Your task to perform on an android device: toggle priority inbox in the gmail app Image 0: 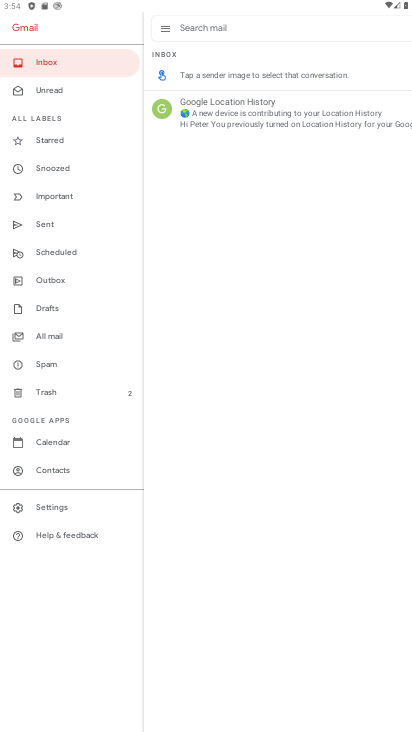
Step 0: press home button
Your task to perform on an android device: toggle priority inbox in the gmail app Image 1: 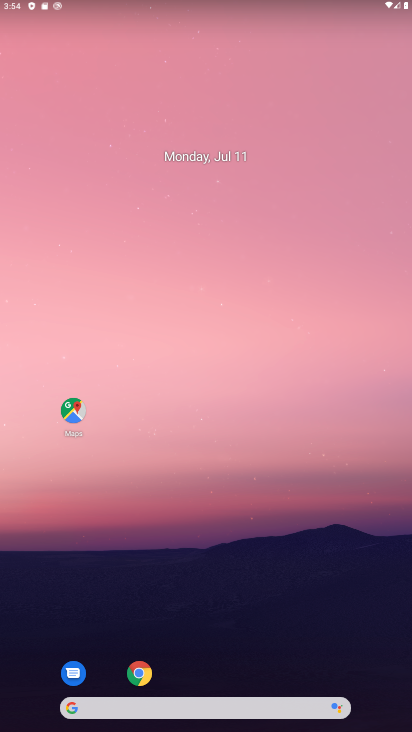
Step 1: drag from (227, 623) to (217, 134)
Your task to perform on an android device: toggle priority inbox in the gmail app Image 2: 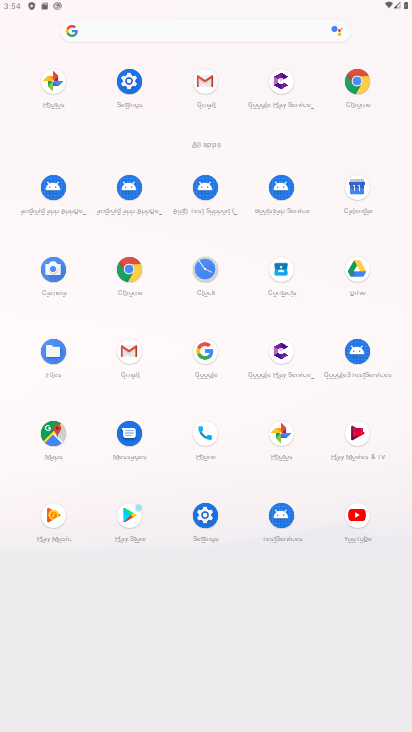
Step 2: click (129, 349)
Your task to perform on an android device: toggle priority inbox in the gmail app Image 3: 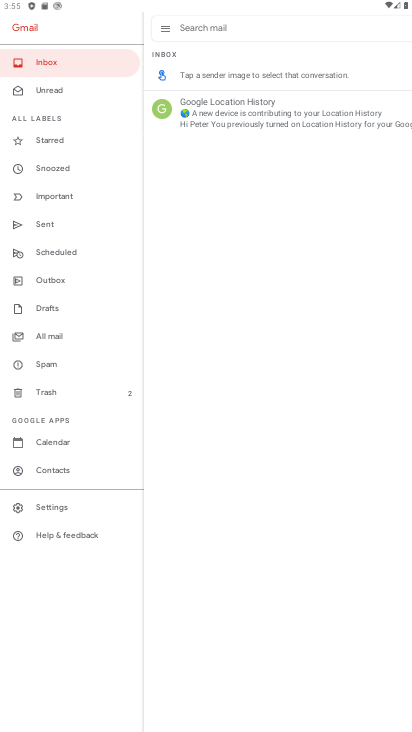
Step 3: click (51, 505)
Your task to perform on an android device: toggle priority inbox in the gmail app Image 4: 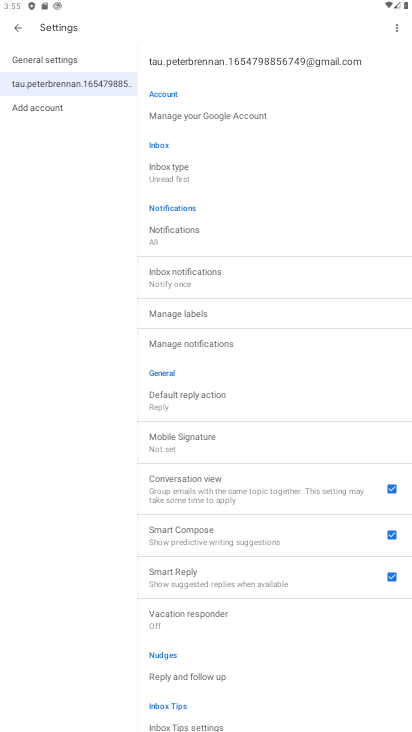
Step 4: click (169, 174)
Your task to perform on an android device: toggle priority inbox in the gmail app Image 5: 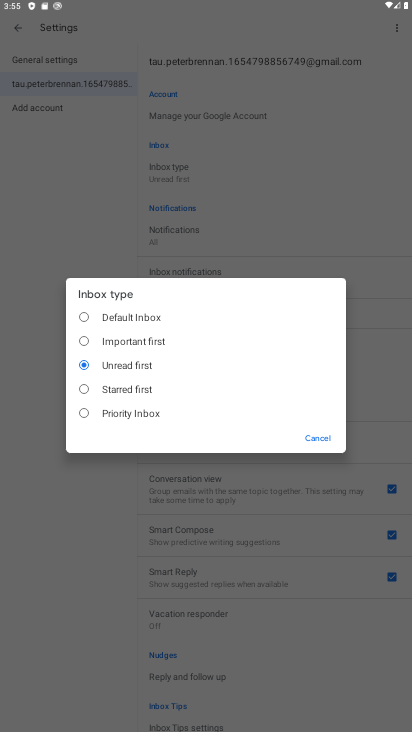
Step 5: click (79, 411)
Your task to perform on an android device: toggle priority inbox in the gmail app Image 6: 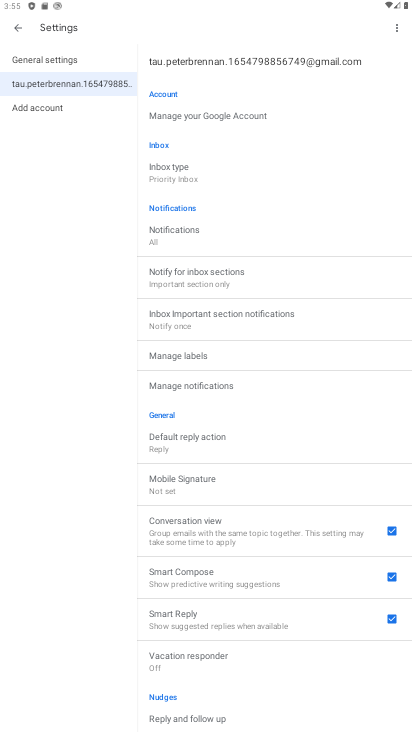
Step 6: task complete